Your task to perform on an android device: turn off notifications in google photos Image 0: 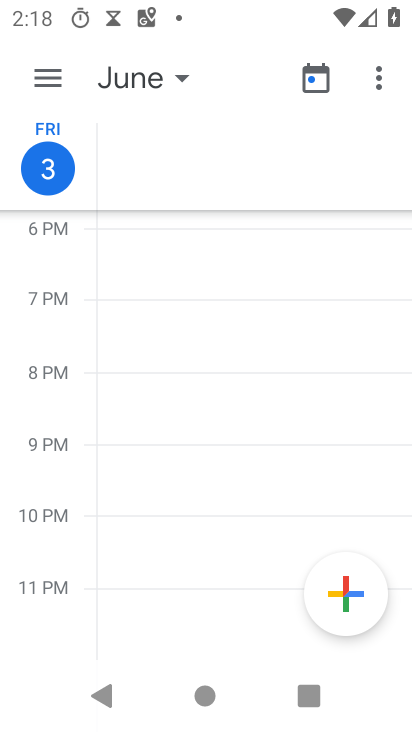
Step 0: press home button
Your task to perform on an android device: turn off notifications in google photos Image 1: 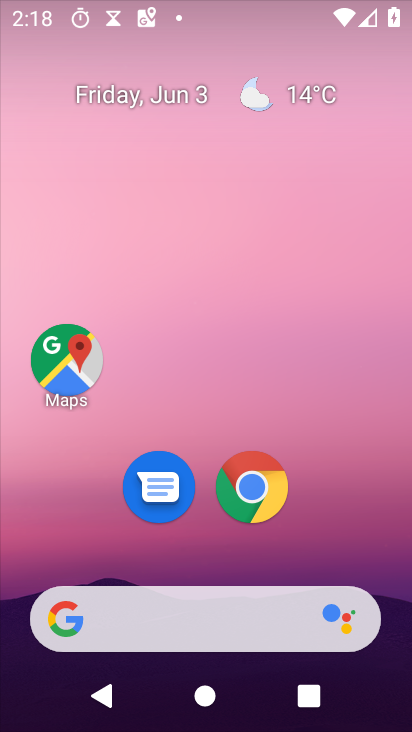
Step 1: drag from (326, 547) to (245, 46)
Your task to perform on an android device: turn off notifications in google photos Image 2: 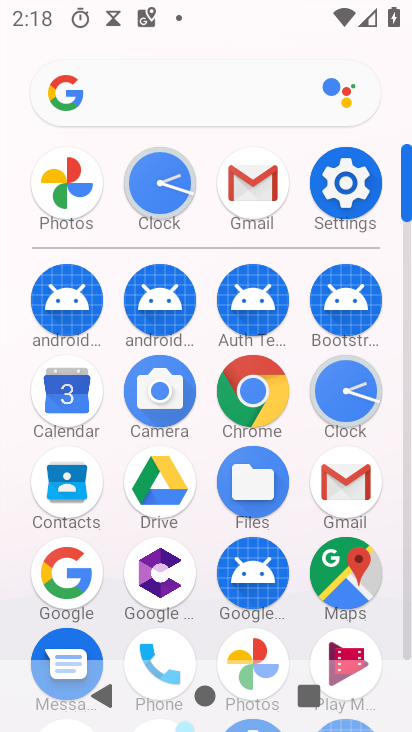
Step 2: click (259, 655)
Your task to perform on an android device: turn off notifications in google photos Image 3: 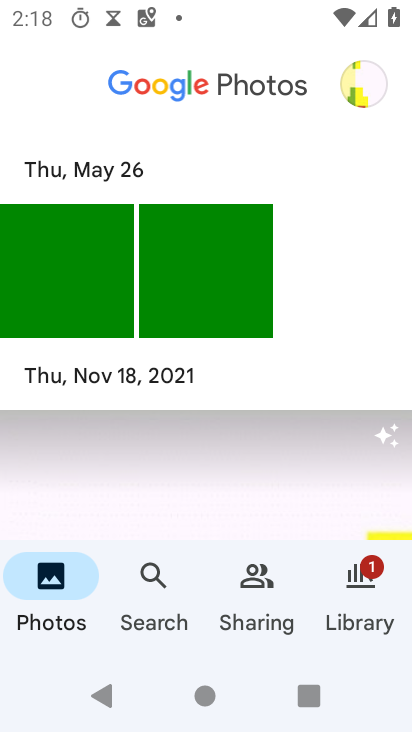
Step 3: click (348, 81)
Your task to perform on an android device: turn off notifications in google photos Image 4: 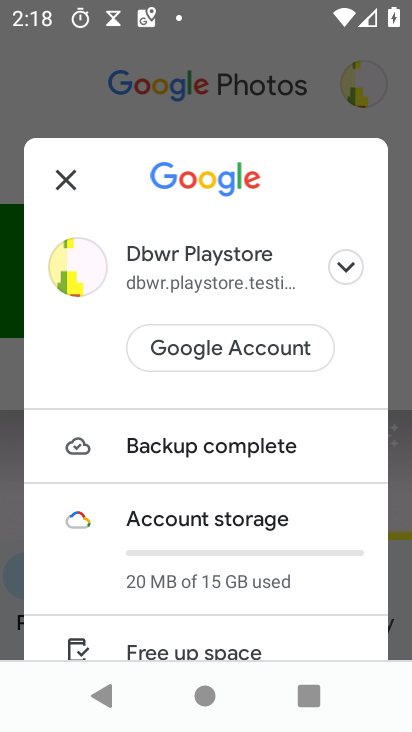
Step 4: drag from (251, 404) to (248, 105)
Your task to perform on an android device: turn off notifications in google photos Image 5: 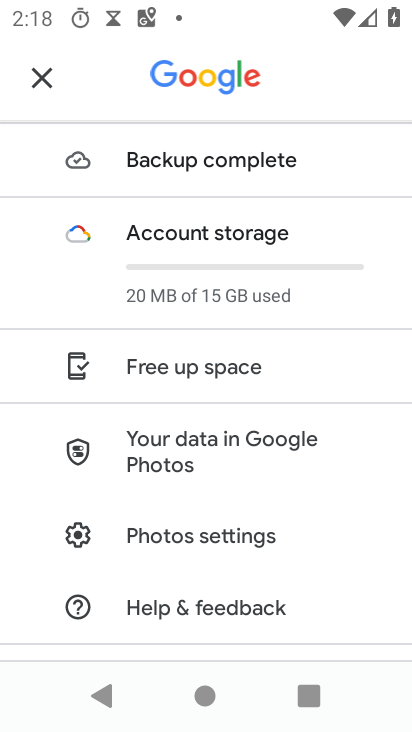
Step 5: click (223, 537)
Your task to perform on an android device: turn off notifications in google photos Image 6: 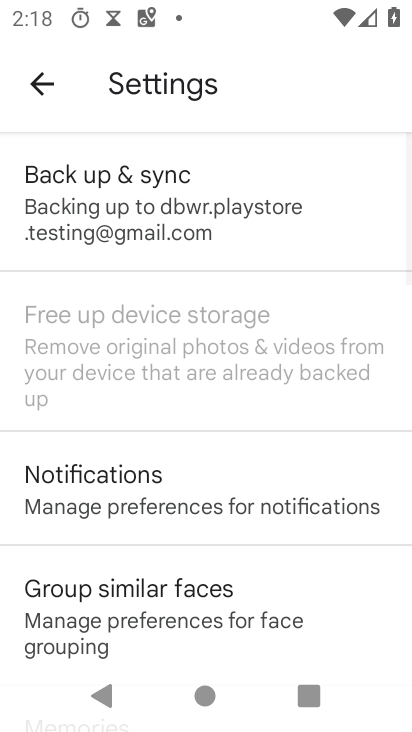
Step 6: click (175, 494)
Your task to perform on an android device: turn off notifications in google photos Image 7: 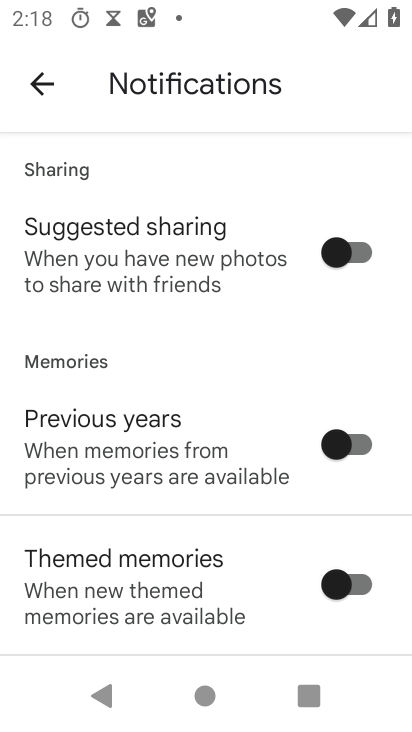
Step 7: task complete